Your task to perform on an android device: How much does a 2 bedroom apartment rent for in Chicago? Image 0: 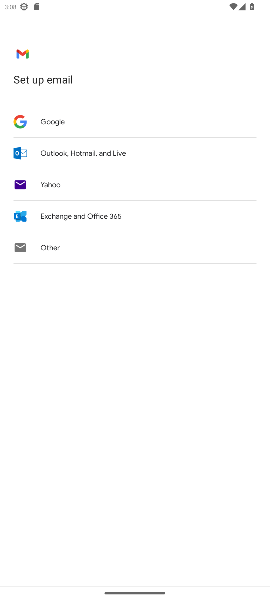
Step 0: press home button
Your task to perform on an android device: How much does a 2 bedroom apartment rent for in Chicago? Image 1: 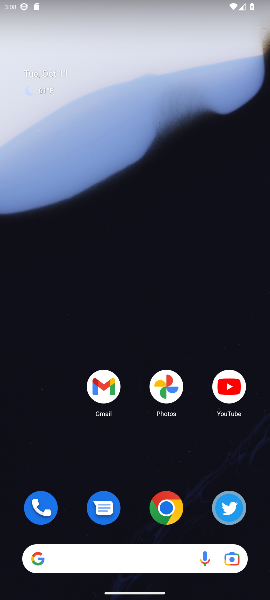
Step 1: click (171, 512)
Your task to perform on an android device: How much does a 2 bedroom apartment rent for in Chicago? Image 2: 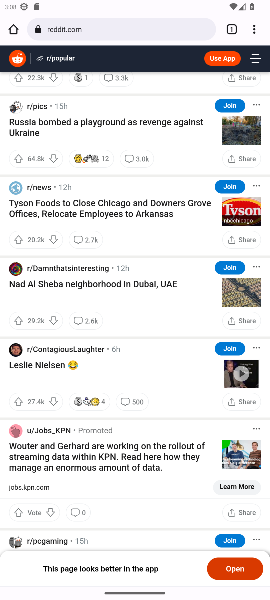
Step 2: click (113, 25)
Your task to perform on an android device: How much does a 2 bedroom apartment rent for in Chicago? Image 3: 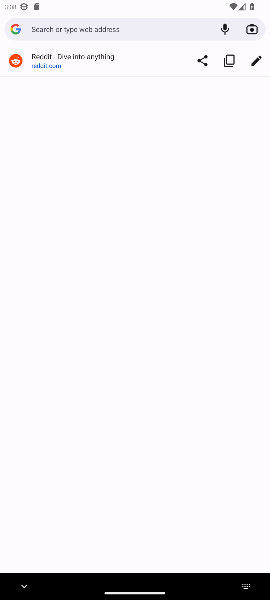
Step 3: type "2 bedroom apartment rent for in Chicago"
Your task to perform on an android device: How much does a 2 bedroom apartment rent for in Chicago? Image 4: 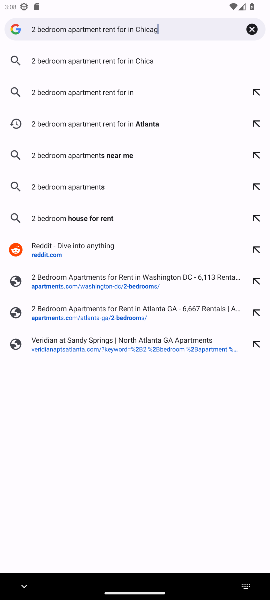
Step 4: type ""
Your task to perform on an android device: How much does a 2 bedroom apartment rent for in Chicago? Image 5: 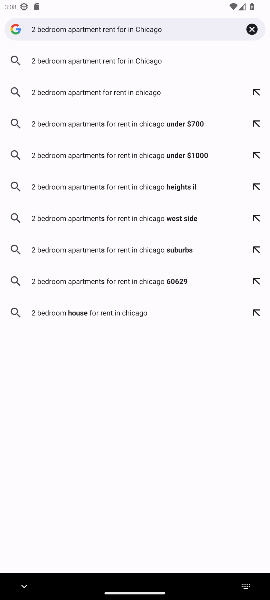
Step 5: press enter
Your task to perform on an android device: How much does a 2 bedroom apartment rent for in Chicago? Image 6: 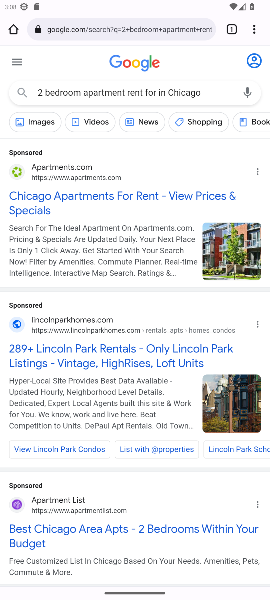
Step 6: drag from (115, 474) to (92, 289)
Your task to perform on an android device: How much does a 2 bedroom apartment rent for in Chicago? Image 7: 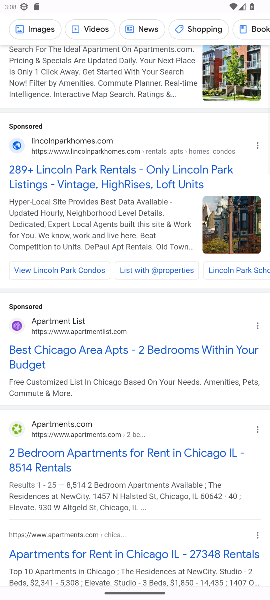
Step 7: click (60, 455)
Your task to perform on an android device: How much does a 2 bedroom apartment rent for in Chicago? Image 8: 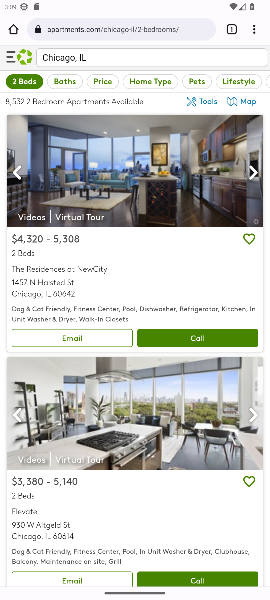
Step 8: task complete